Your task to perform on an android device: toggle translation in the chrome app Image 0: 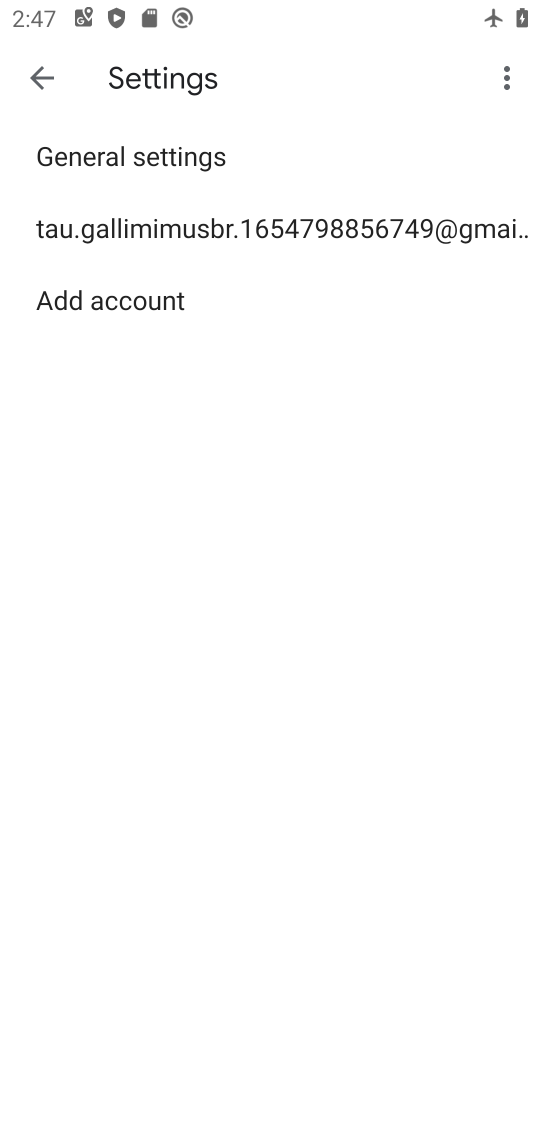
Step 0: press home button
Your task to perform on an android device: toggle translation in the chrome app Image 1: 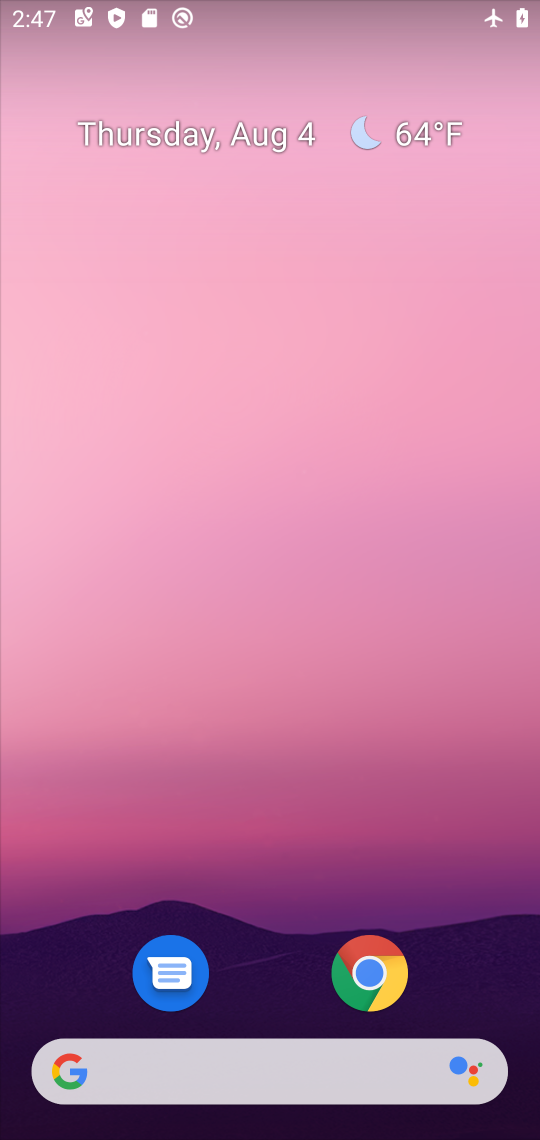
Step 1: click (353, 981)
Your task to perform on an android device: toggle translation in the chrome app Image 2: 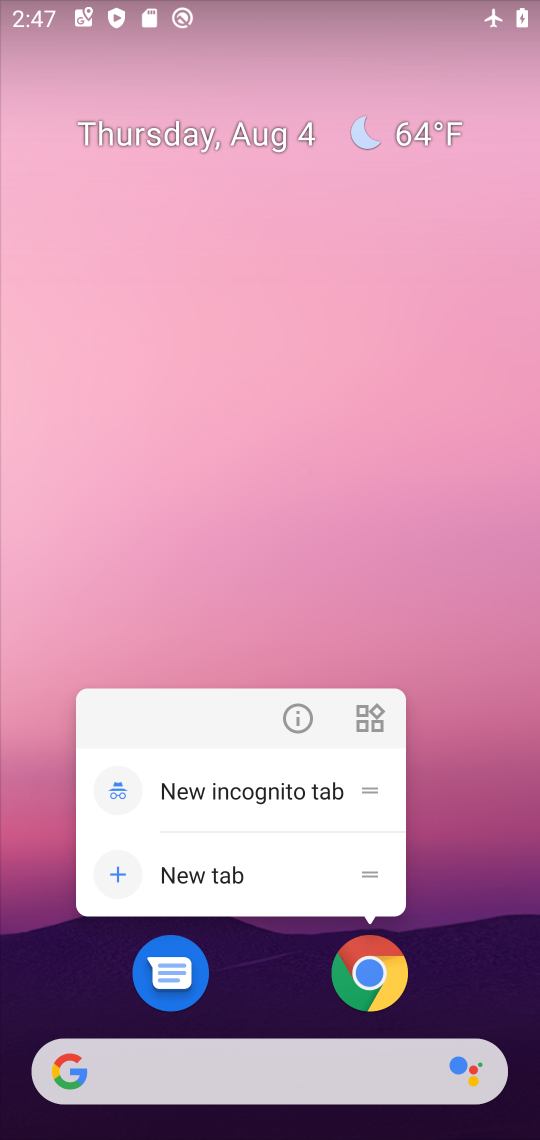
Step 2: click (398, 962)
Your task to perform on an android device: toggle translation in the chrome app Image 3: 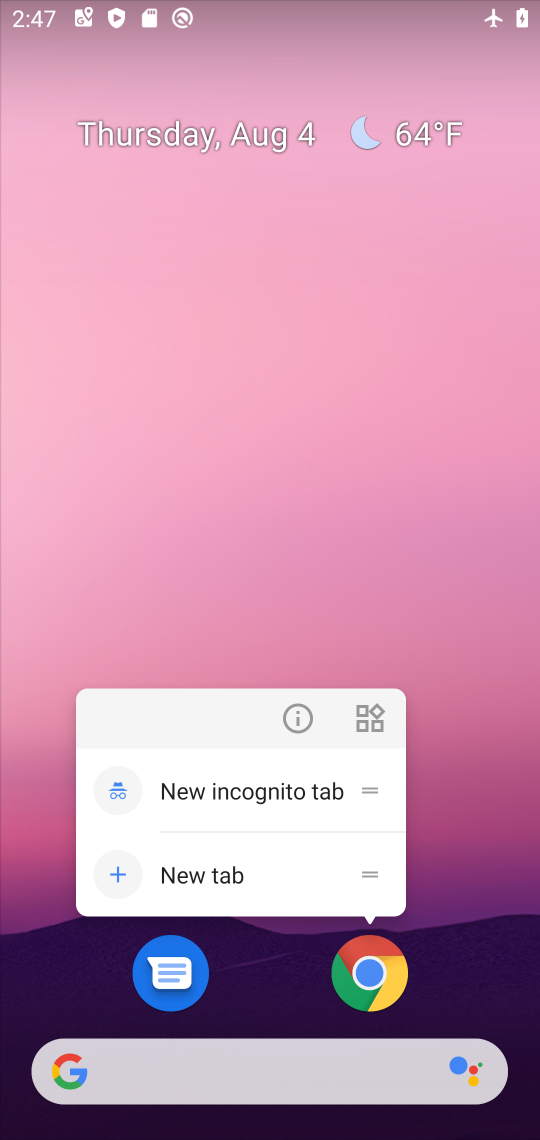
Step 3: click (383, 982)
Your task to perform on an android device: toggle translation in the chrome app Image 4: 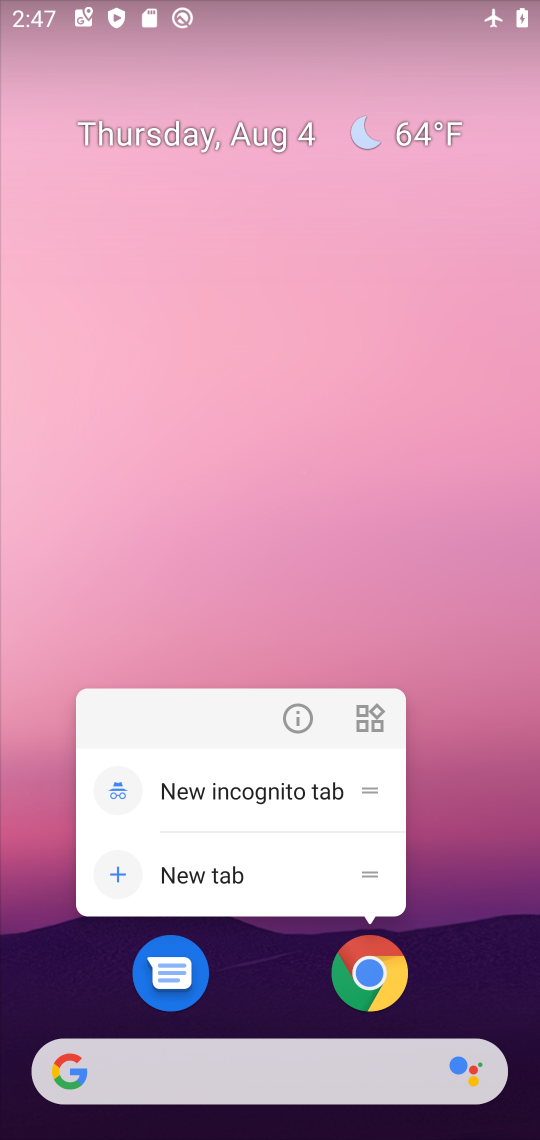
Step 4: click (379, 979)
Your task to perform on an android device: toggle translation in the chrome app Image 5: 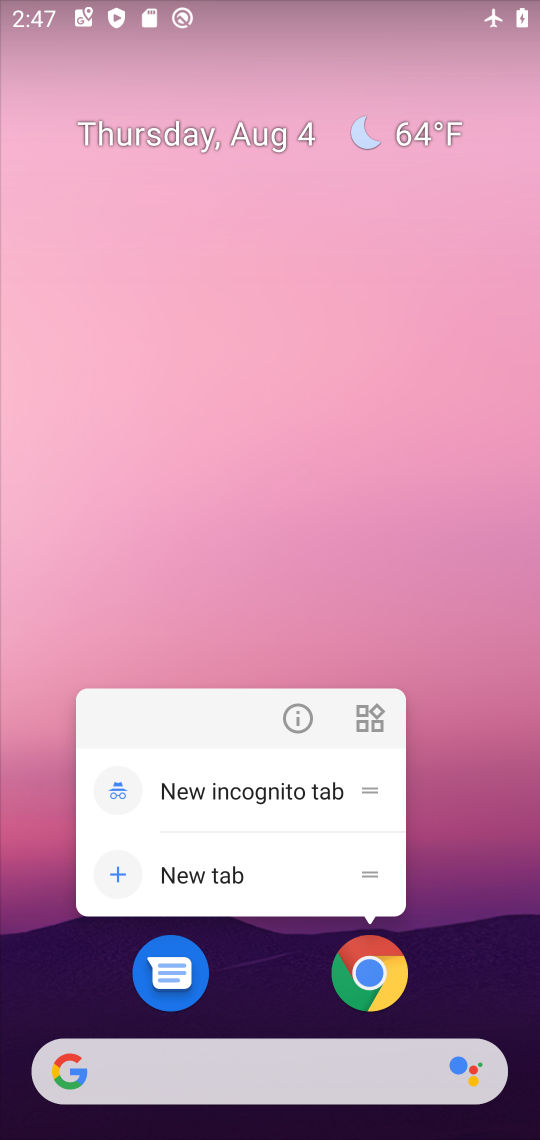
Step 5: click (370, 977)
Your task to perform on an android device: toggle translation in the chrome app Image 6: 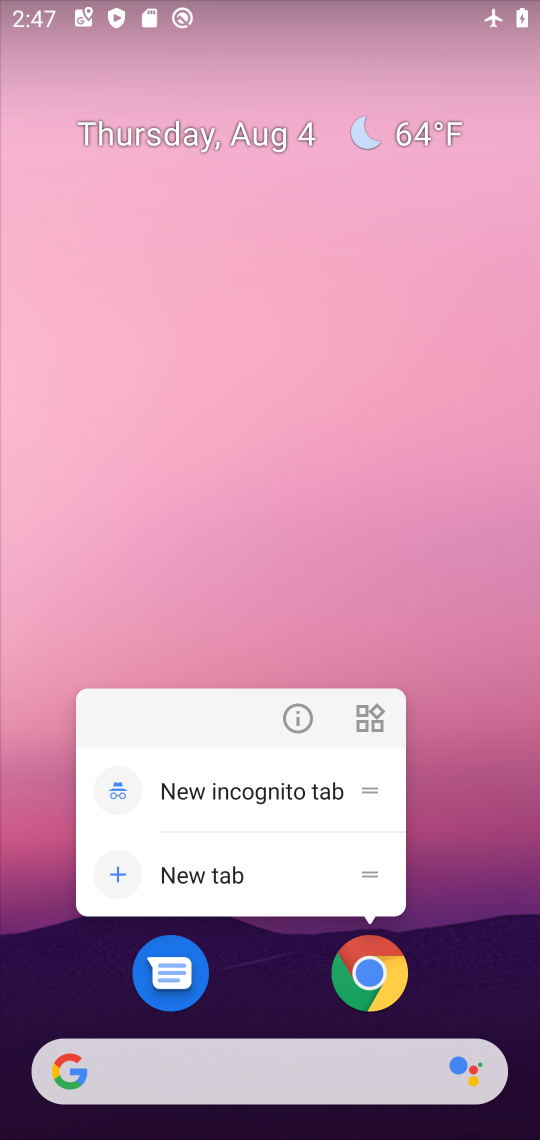
Step 6: click (350, 969)
Your task to perform on an android device: toggle translation in the chrome app Image 7: 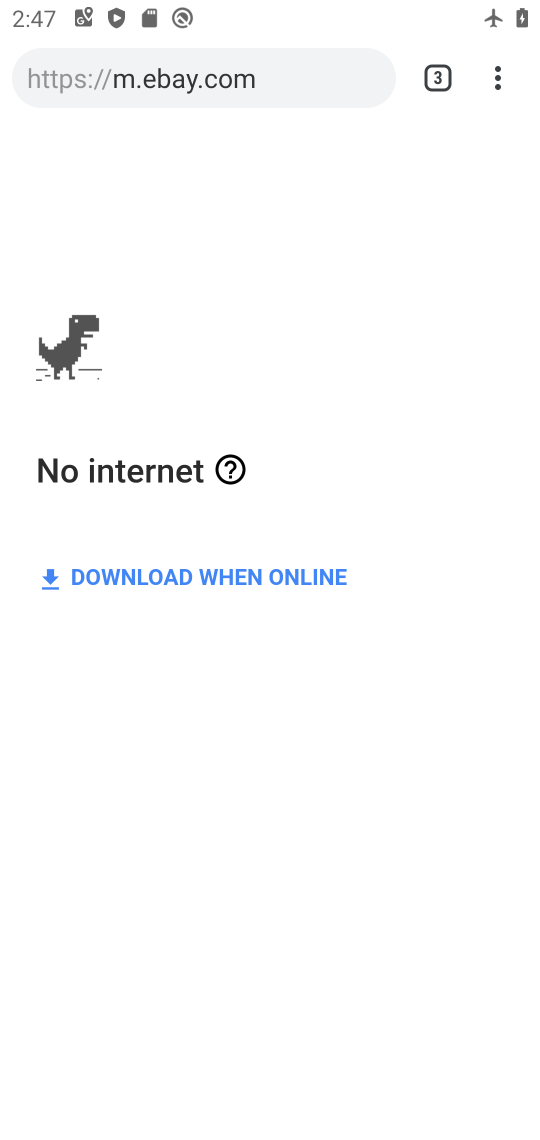
Step 7: drag from (487, 79) to (198, 878)
Your task to perform on an android device: toggle translation in the chrome app Image 8: 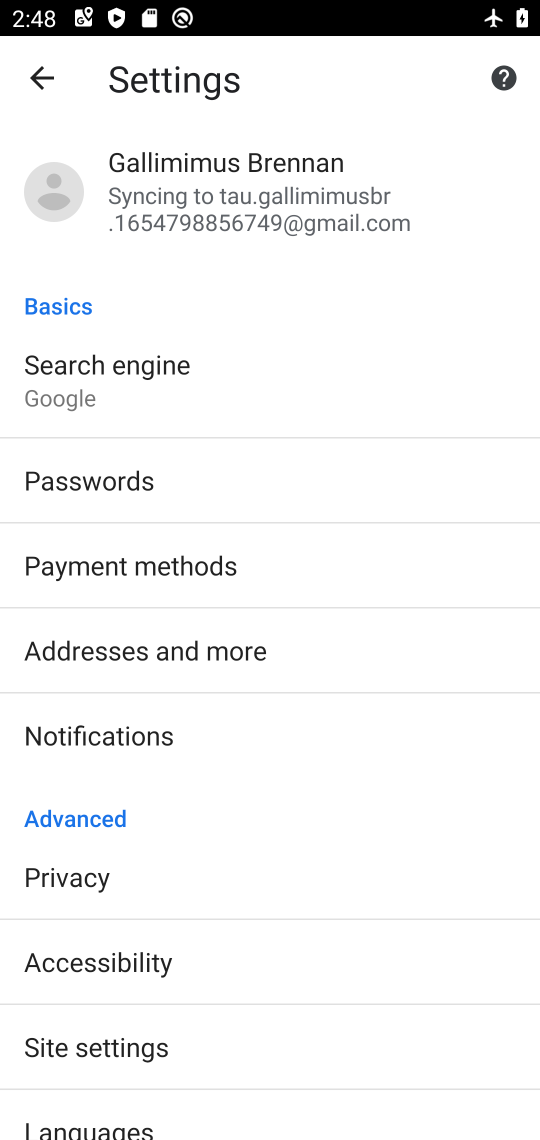
Step 8: drag from (237, 998) to (210, 340)
Your task to perform on an android device: toggle translation in the chrome app Image 9: 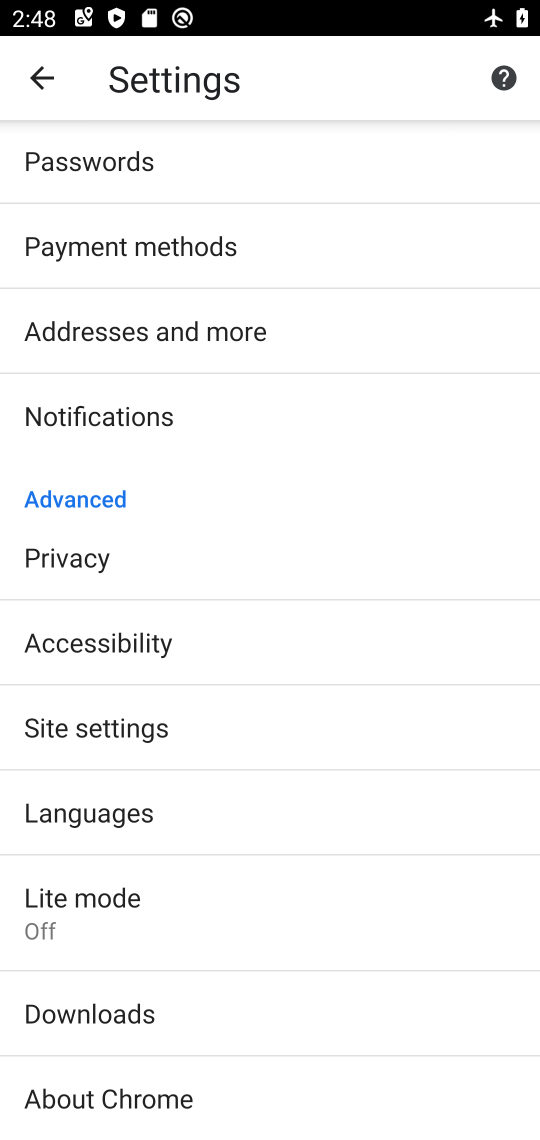
Step 9: click (142, 813)
Your task to perform on an android device: toggle translation in the chrome app Image 10: 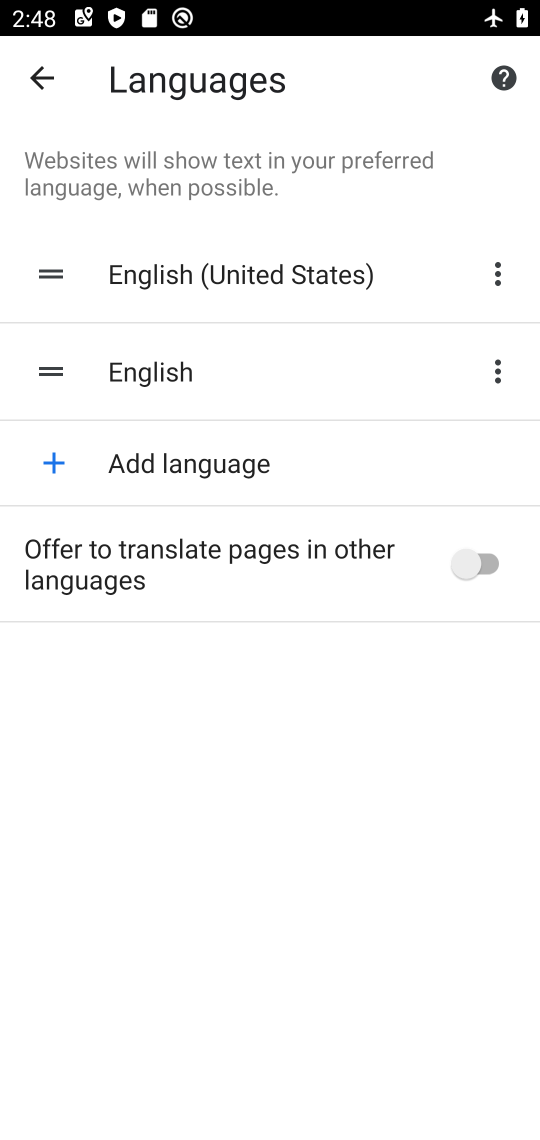
Step 10: click (448, 552)
Your task to perform on an android device: toggle translation in the chrome app Image 11: 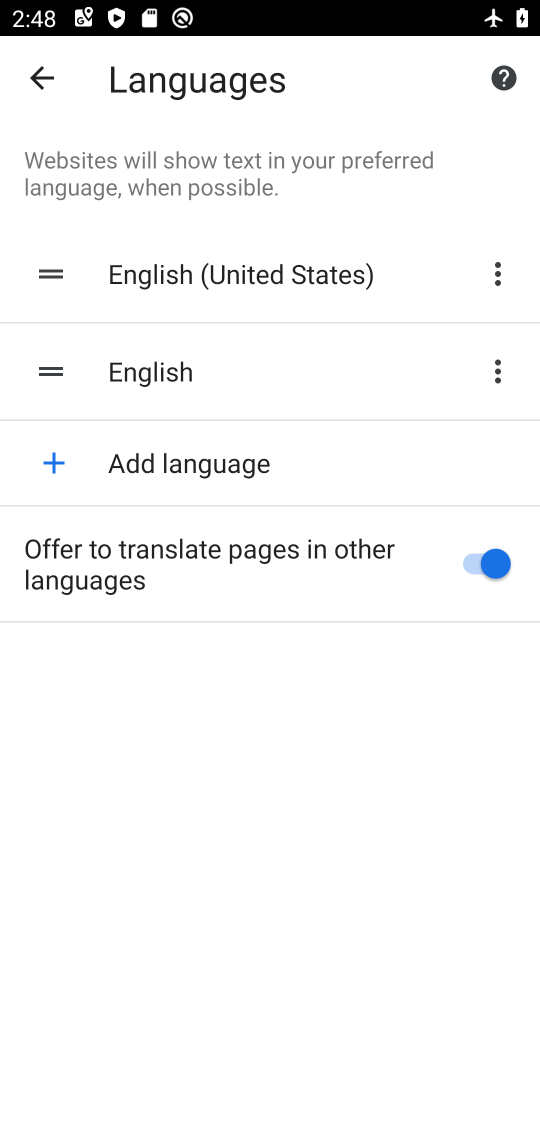
Step 11: task complete